Your task to perform on an android device: When is my next appointment? Image 0: 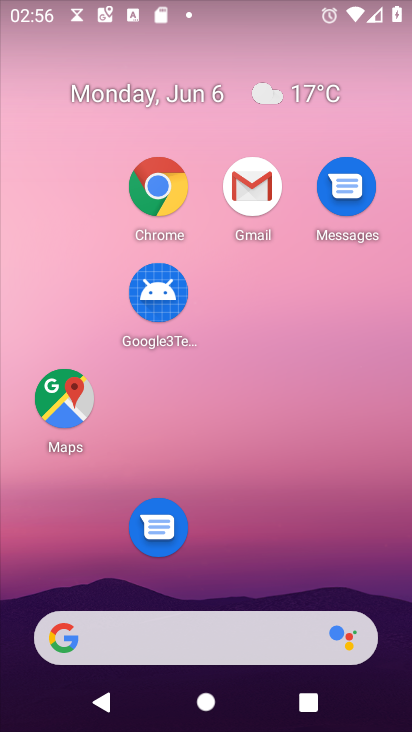
Step 0: drag from (240, 554) to (218, 9)
Your task to perform on an android device: When is my next appointment? Image 1: 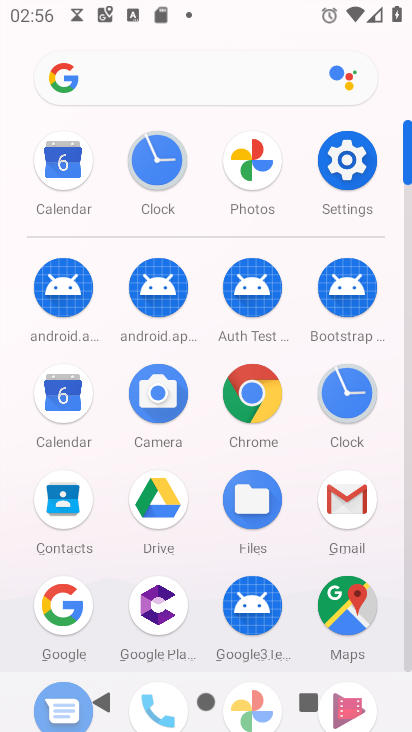
Step 1: click (69, 170)
Your task to perform on an android device: When is my next appointment? Image 2: 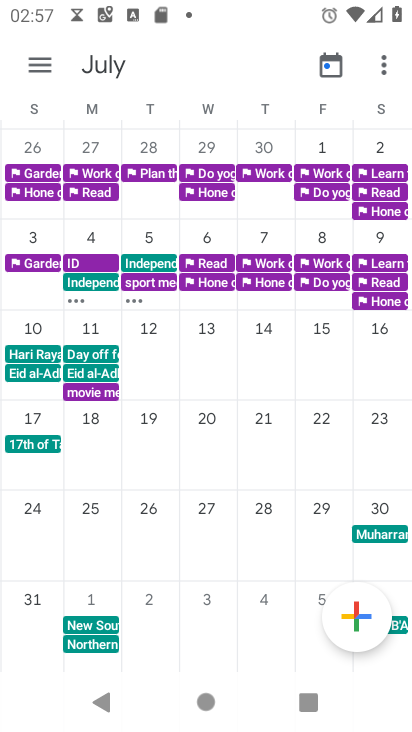
Step 2: click (50, 53)
Your task to perform on an android device: When is my next appointment? Image 3: 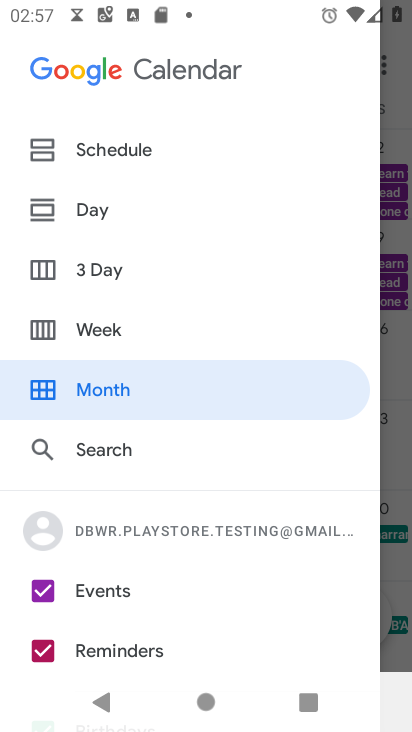
Step 3: click (150, 392)
Your task to perform on an android device: When is my next appointment? Image 4: 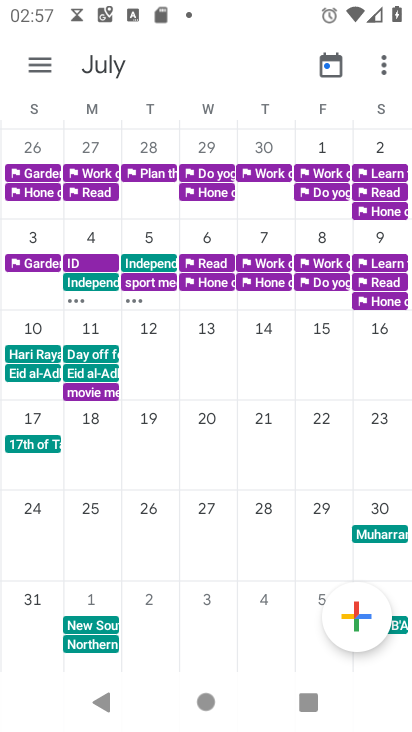
Step 4: click (39, 59)
Your task to perform on an android device: When is my next appointment? Image 5: 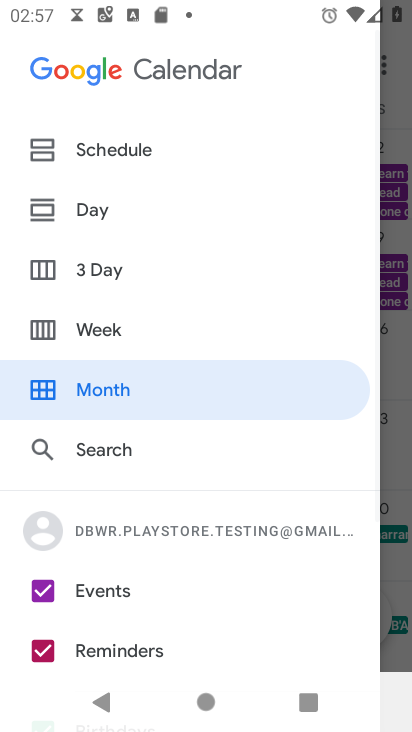
Step 5: click (136, 138)
Your task to perform on an android device: When is my next appointment? Image 6: 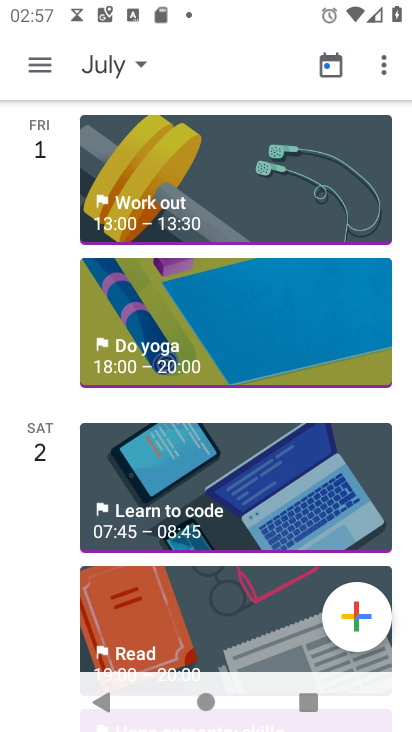
Step 6: click (115, 36)
Your task to perform on an android device: When is my next appointment? Image 7: 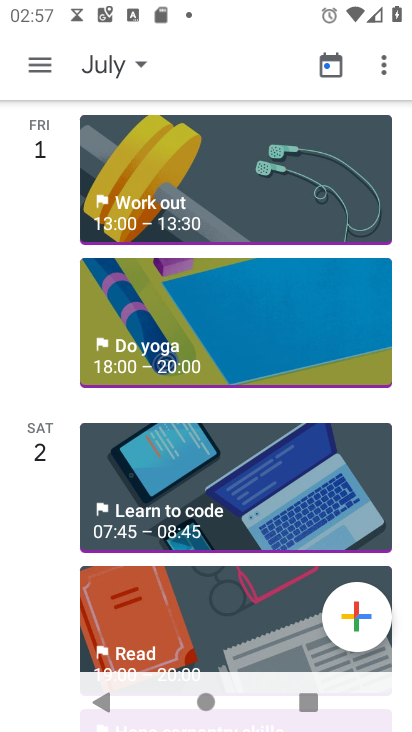
Step 7: click (117, 54)
Your task to perform on an android device: When is my next appointment? Image 8: 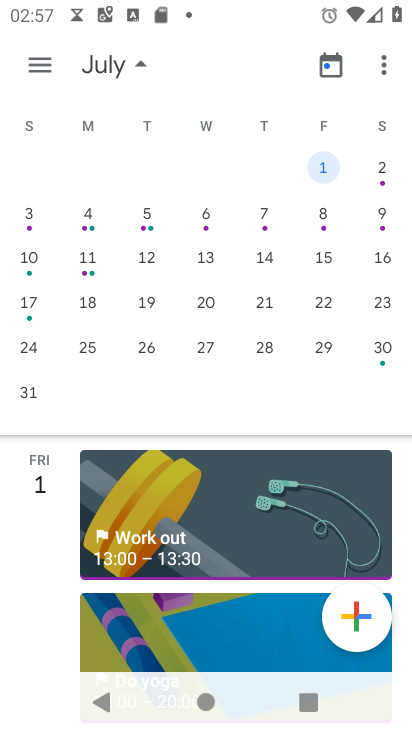
Step 8: drag from (58, 162) to (364, 218)
Your task to perform on an android device: When is my next appointment? Image 9: 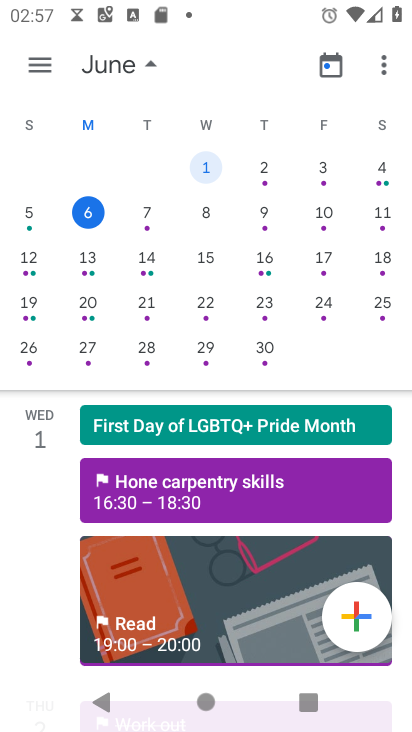
Step 9: click (153, 215)
Your task to perform on an android device: When is my next appointment? Image 10: 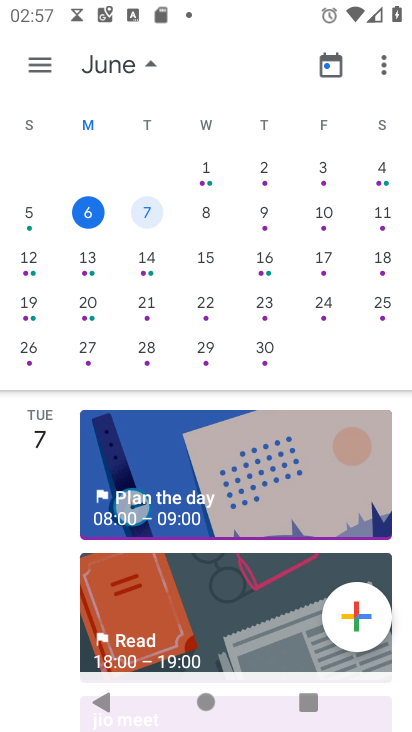
Step 10: task complete